Your task to perform on an android device: turn off javascript in the chrome app Image 0: 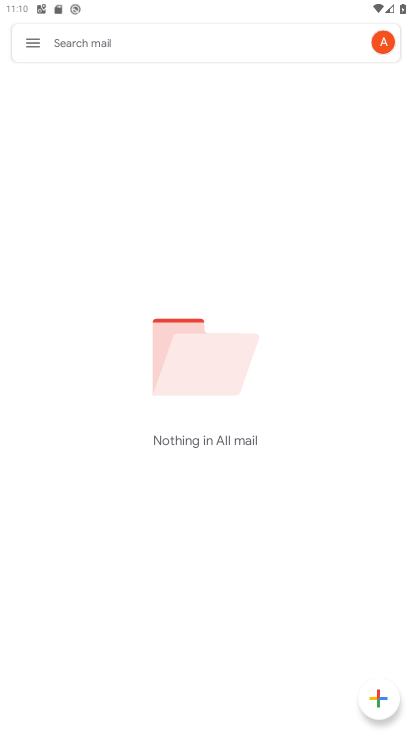
Step 0: press home button
Your task to perform on an android device: turn off javascript in the chrome app Image 1: 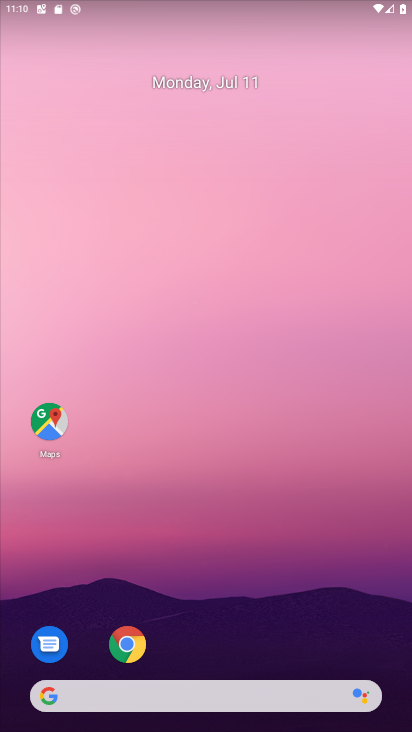
Step 1: click (129, 654)
Your task to perform on an android device: turn off javascript in the chrome app Image 2: 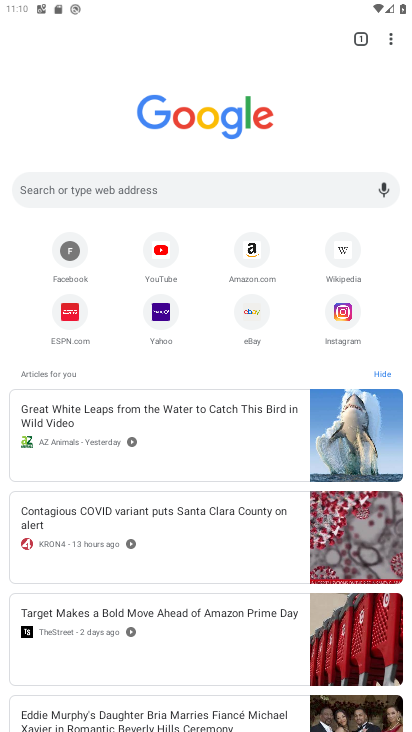
Step 2: click (391, 34)
Your task to perform on an android device: turn off javascript in the chrome app Image 3: 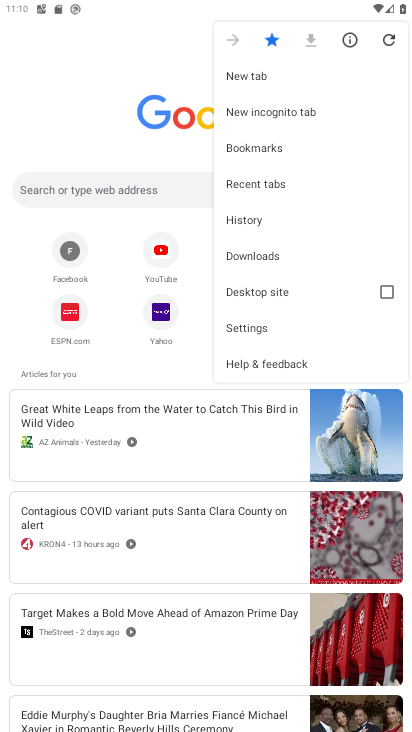
Step 3: click (289, 332)
Your task to perform on an android device: turn off javascript in the chrome app Image 4: 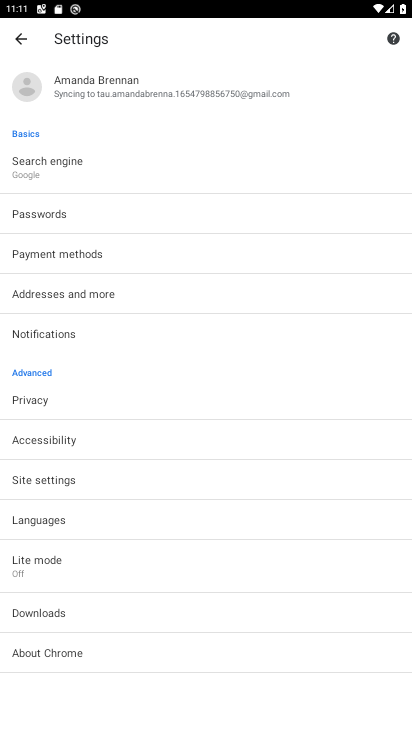
Step 4: click (116, 480)
Your task to perform on an android device: turn off javascript in the chrome app Image 5: 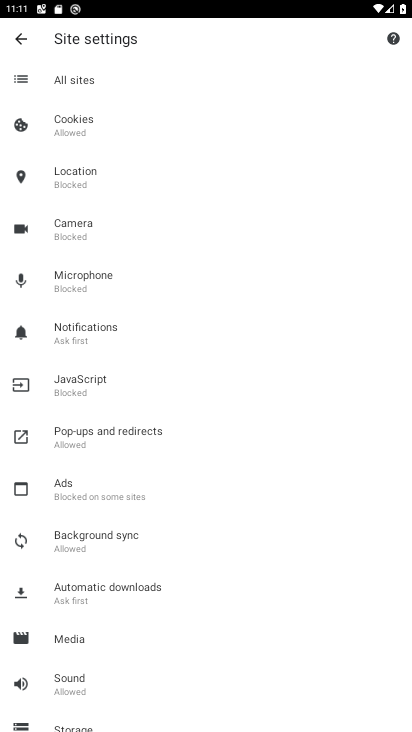
Step 5: click (143, 388)
Your task to perform on an android device: turn off javascript in the chrome app Image 6: 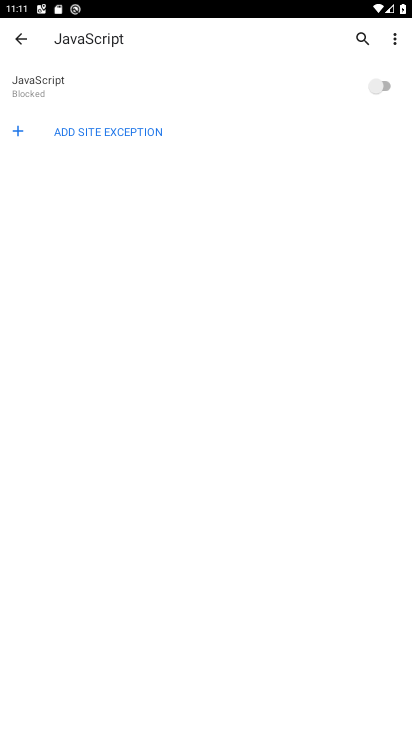
Step 6: task complete